Your task to perform on an android device: Show me popular games on the Play Store Image 0: 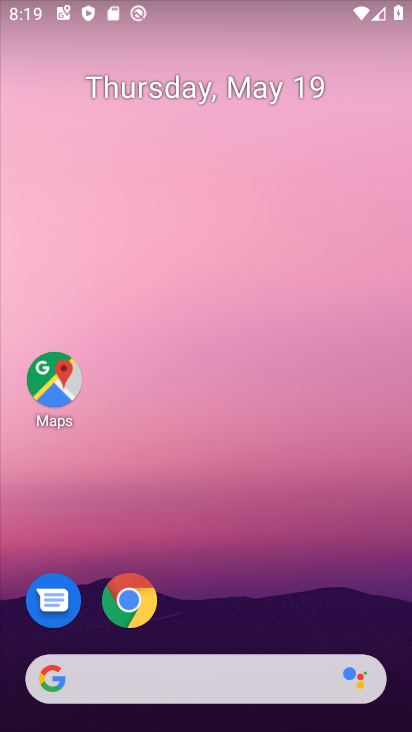
Step 0: drag from (241, 638) to (260, 15)
Your task to perform on an android device: Show me popular games on the Play Store Image 1: 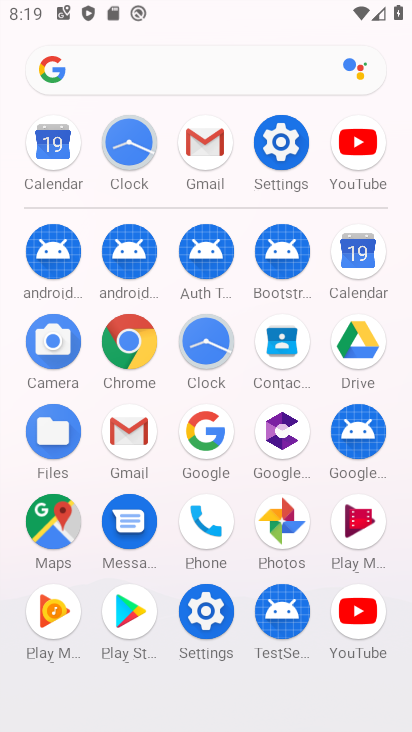
Step 1: click (131, 605)
Your task to perform on an android device: Show me popular games on the Play Store Image 2: 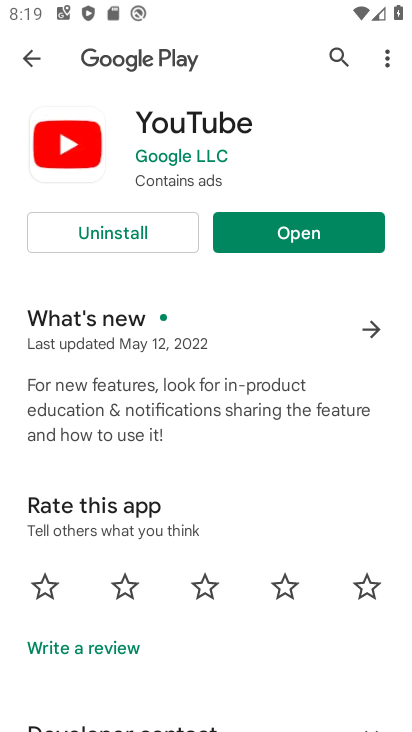
Step 2: click (33, 56)
Your task to perform on an android device: Show me popular games on the Play Store Image 3: 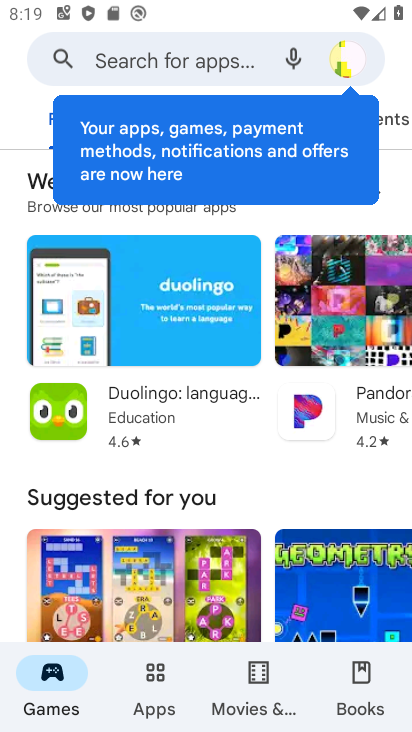
Step 3: drag from (227, 543) to (242, 83)
Your task to perform on an android device: Show me popular games on the Play Store Image 4: 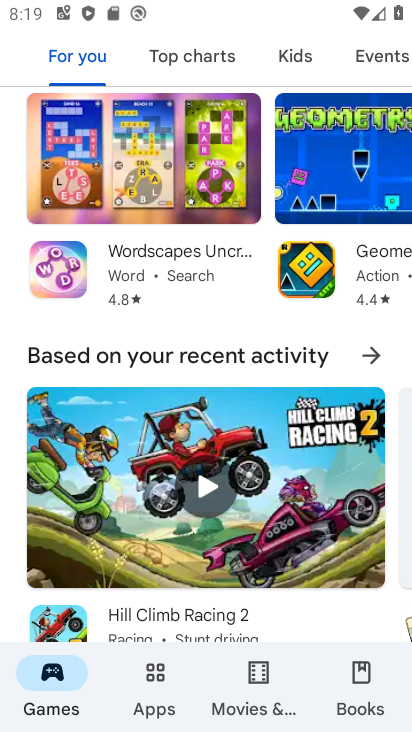
Step 4: drag from (194, 498) to (205, 180)
Your task to perform on an android device: Show me popular games on the Play Store Image 5: 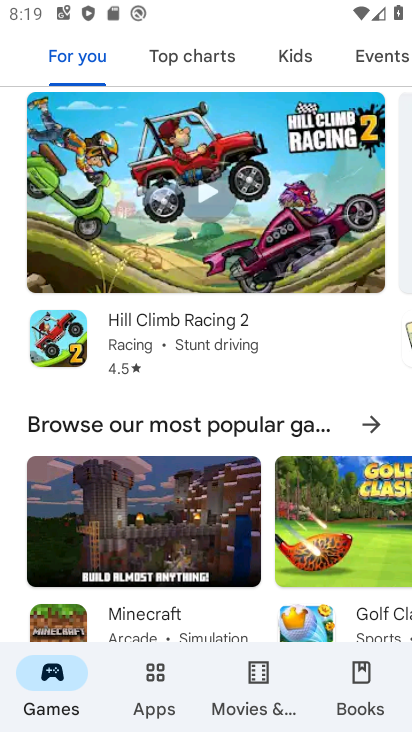
Step 5: click (233, 428)
Your task to perform on an android device: Show me popular games on the Play Store Image 6: 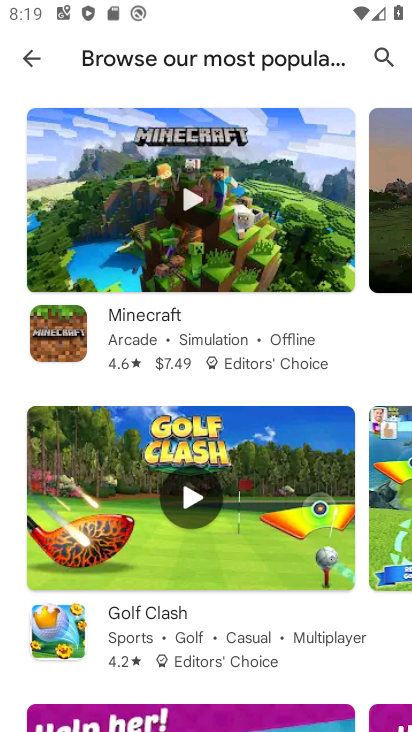
Step 6: task complete